Your task to perform on an android device: Open network settings Image 0: 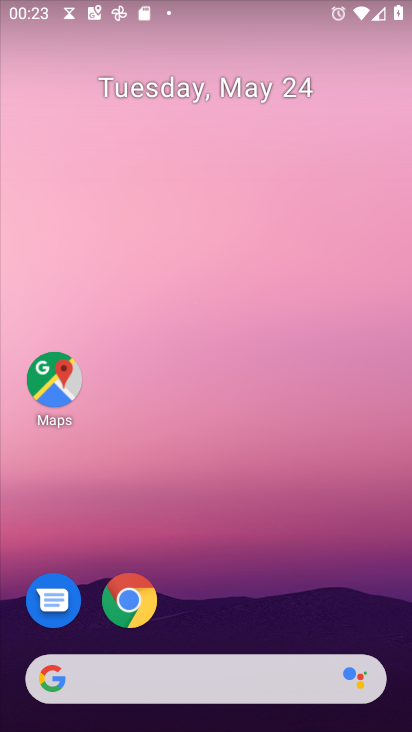
Step 0: drag from (195, 728) to (198, 46)
Your task to perform on an android device: Open network settings Image 1: 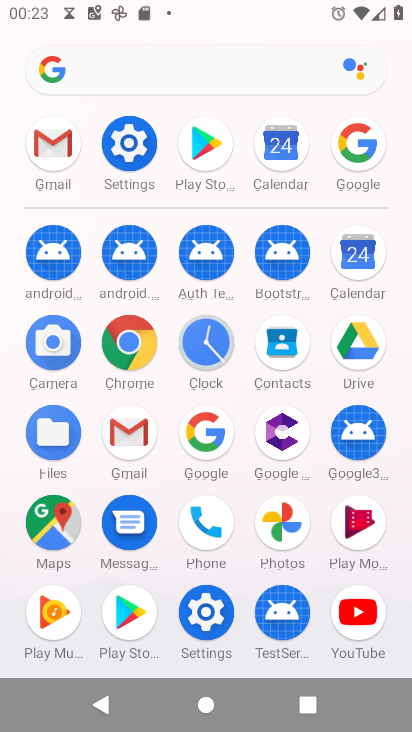
Step 1: click (129, 138)
Your task to perform on an android device: Open network settings Image 2: 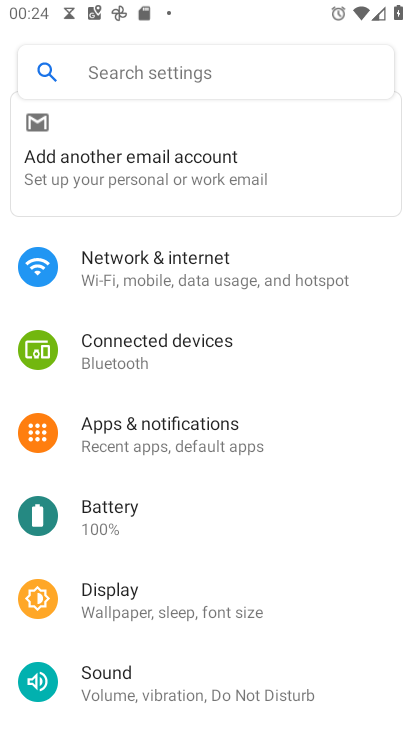
Step 2: click (146, 263)
Your task to perform on an android device: Open network settings Image 3: 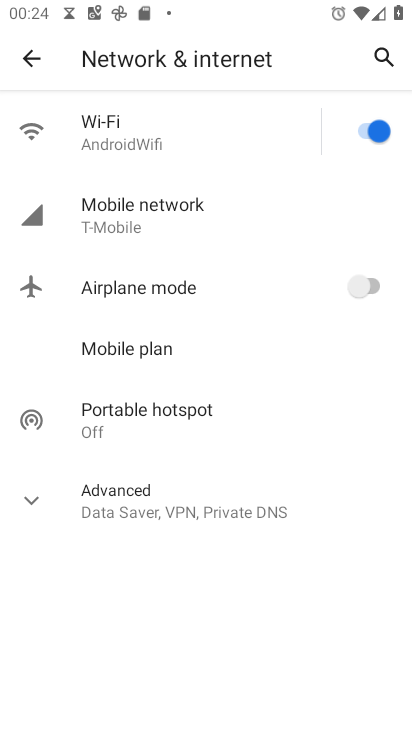
Step 3: click (140, 194)
Your task to perform on an android device: Open network settings Image 4: 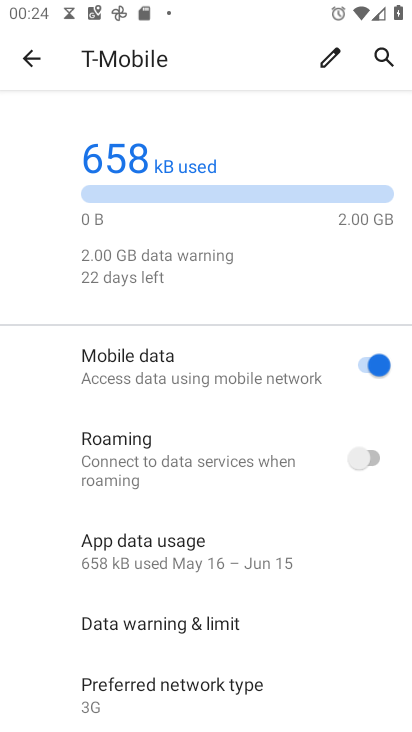
Step 4: task complete